Your task to perform on an android device: turn off location Image 0: 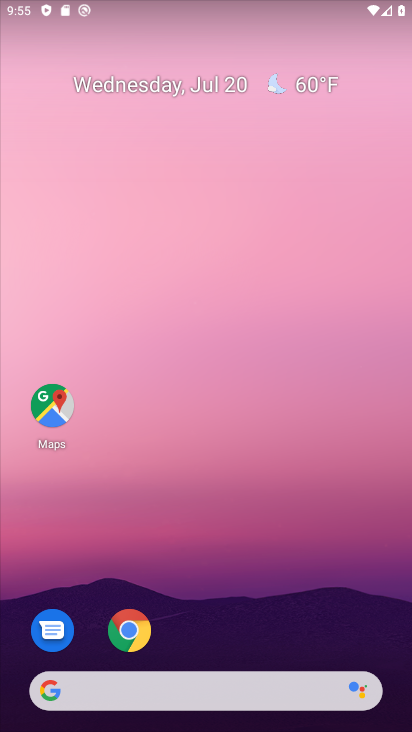
Step 0: drag from (186, 511) to (237, 17)
Your task to perform on an android device: turn off location Image 1: 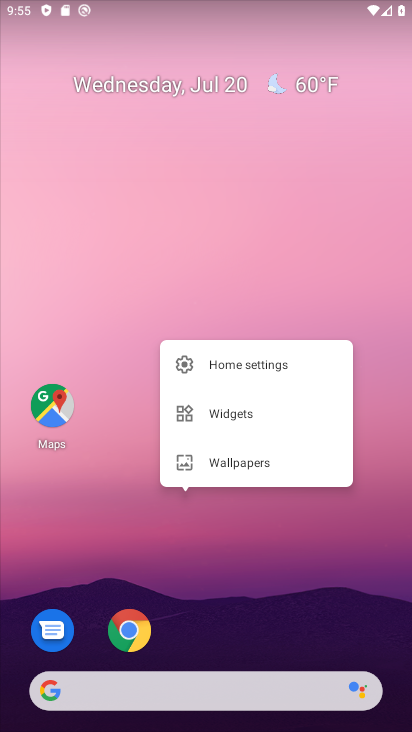
Step 1: click (278, 223)
Your task to perform on an android device: turn off location Image 2: 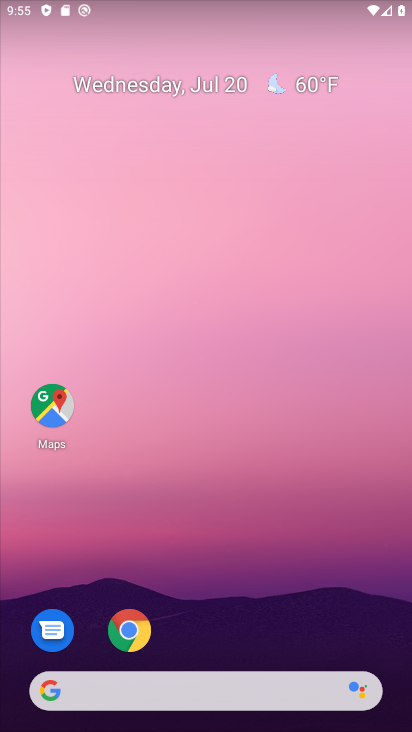
Step 2: drag from (284, 623) to (240, 32)
Your task to perform on an android device: turn off location Image 3: 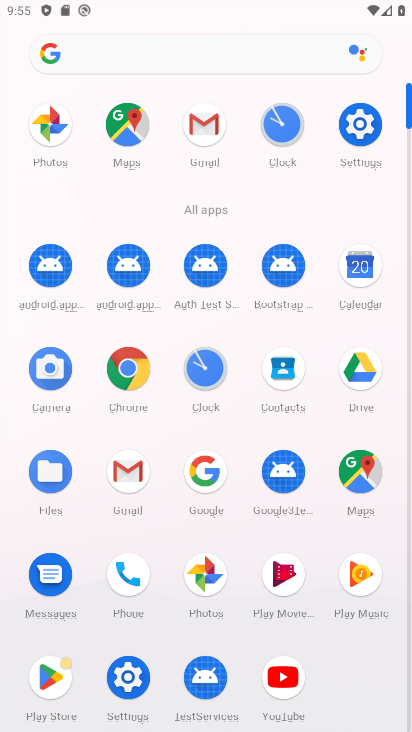
Step 3: click (357, 148)
Your task to perform on an android device: turn off location Image 4: 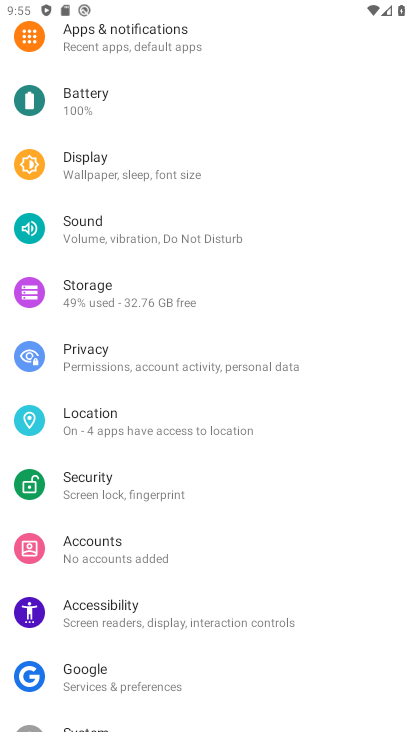
Step 4: click (102, 418)
Your task to perform on an android device: turn off location Image 5: 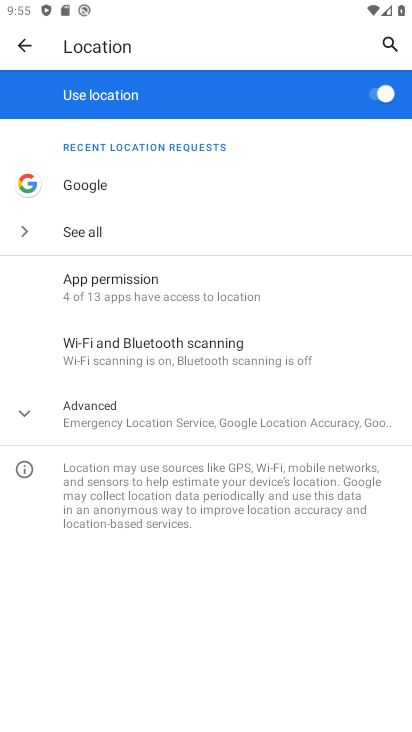
Step 5: click (377, 97)
Your task to perform on an android device: turn off location Image 6: 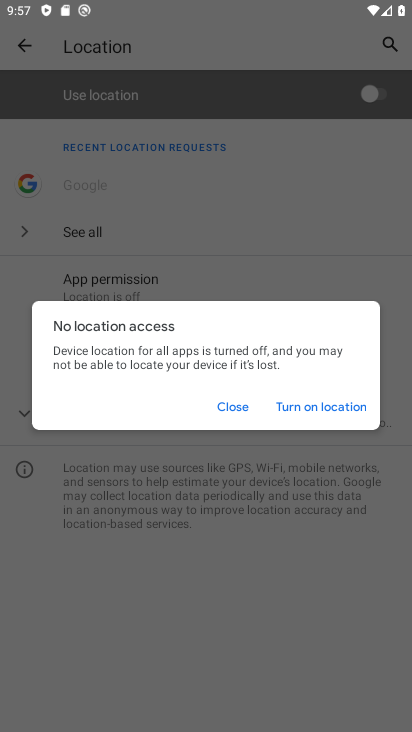
Step 6: task complete